Your task to perform on an android device: empty trash in google photos Image 0: 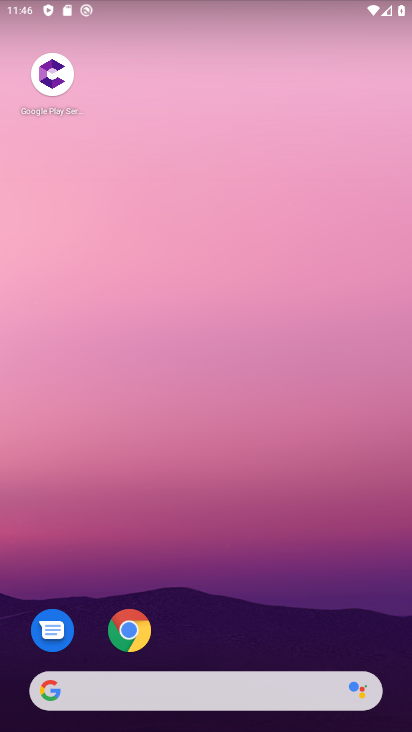
Step 0: drag from (237, 604) to (242, 344)
Your task to perform on an android device: empty trash in google photos Image 1: 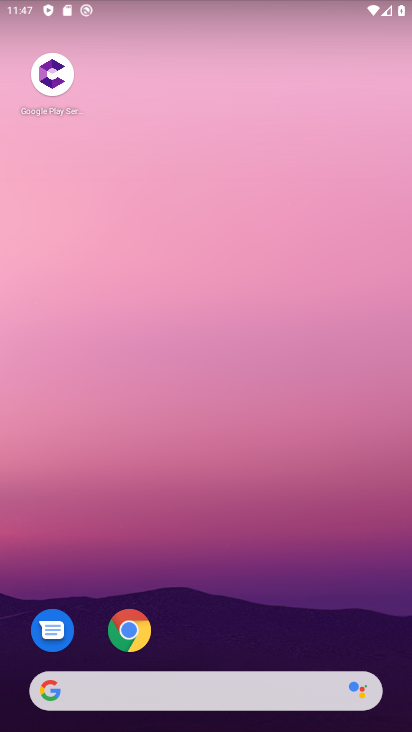
Step 1: drag from (221, 632) to (216, 96)
Your task to perform on an android device: empty trash in google photos Image 2: 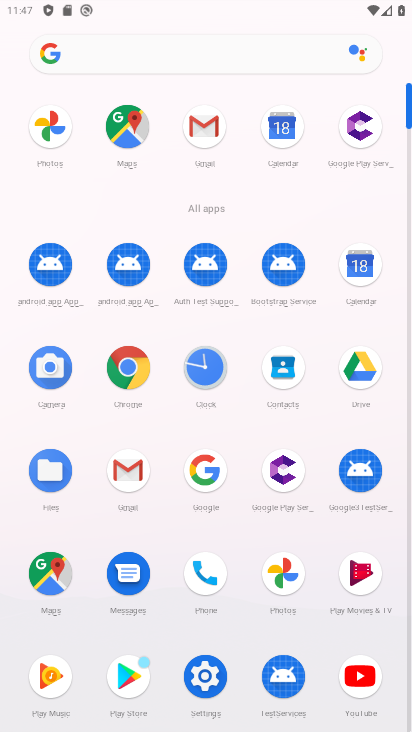
Step 2: click (289, 563)
Your task to perform on an android device: empty trash in google photos Image 3: 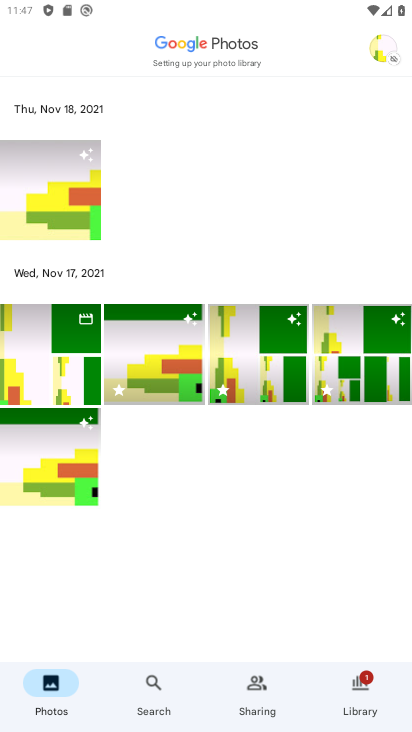
Step 3: drag from (61, 214) to (153, 578)
Your task to perform on an android device: empty trash in google photos Image 4: 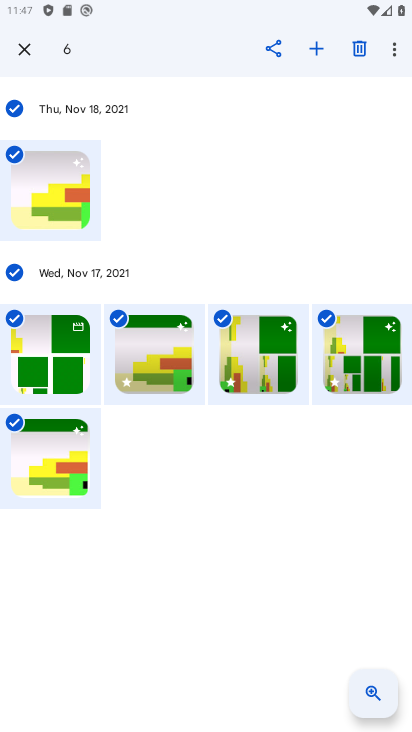
Step 4: click (18, 52)
Your task to perform on an android device: empty trash in google photos Image 5: 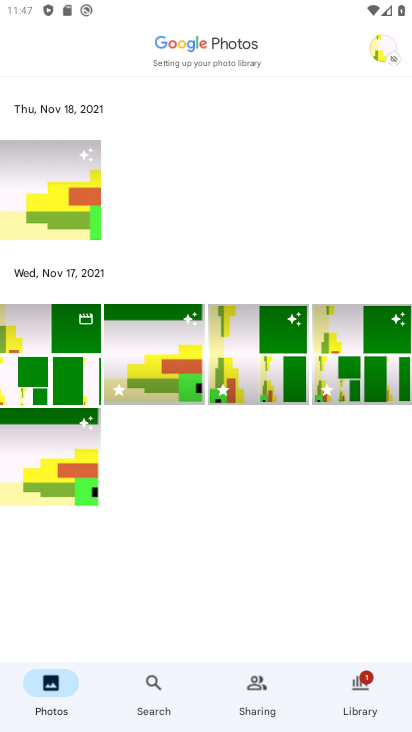
Step 5: click (358, 689)
Your task to perform on an android device: empty trash in google photos Image 6: 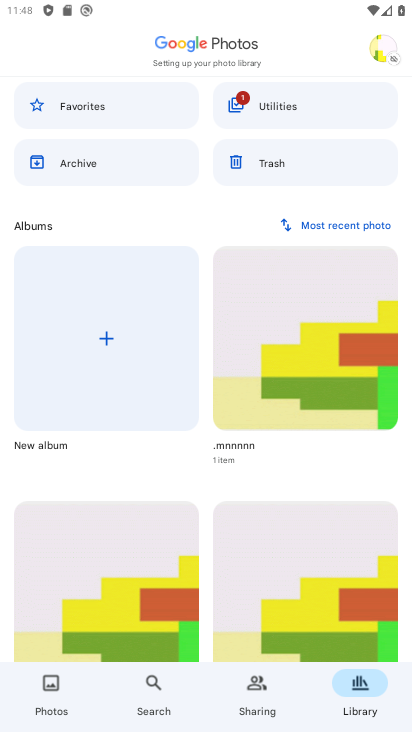
Step 6: click (277, 177)
Your task to perform on an android device: empty trash in google photos Image 7: 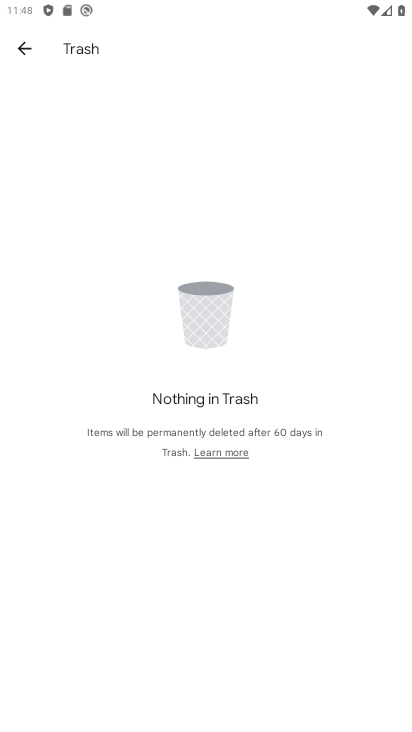
Step 7: task complete